Your task to perform on an android device: Go to eBay Image 0: 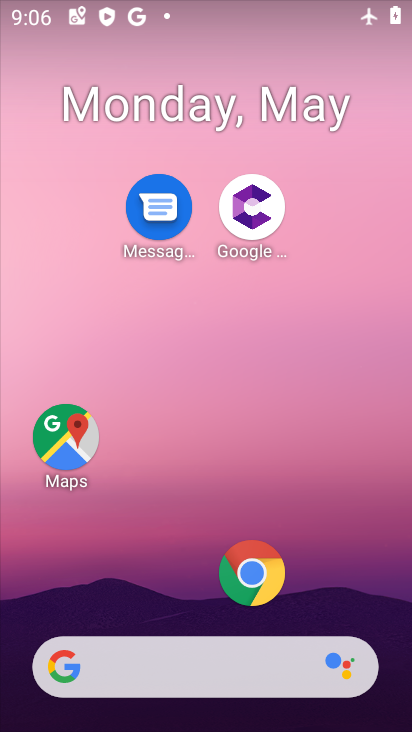
Step 0: click (266, 583)
Your task to perform on an android device: Go to eBay Image 1: 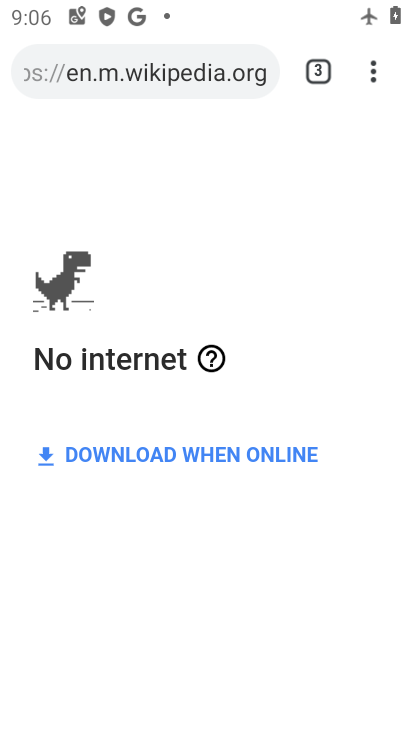
Step 1: click (211, 74)
Your task to perform on an android device: Go to eBay Image 2: 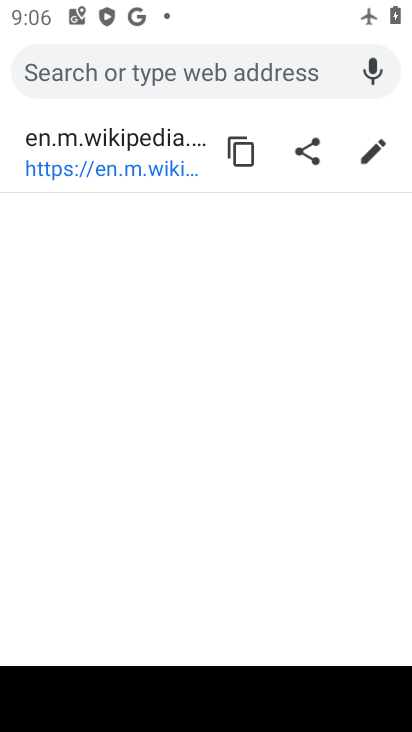
Step 2: type "ebay"
Your task to perform on an android device: Go to eBay Image 3: 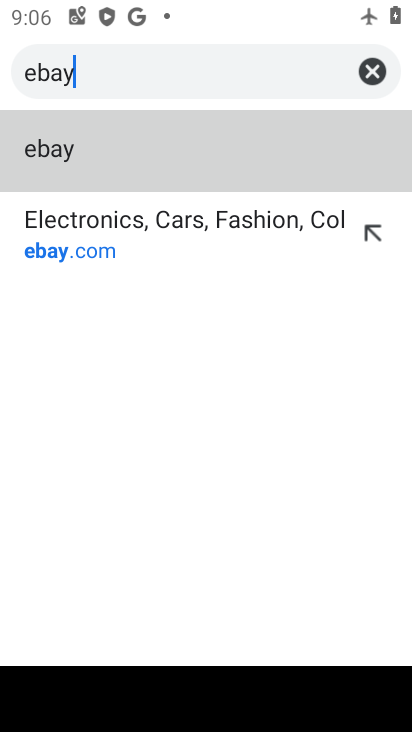
Step 3: click (93, 241)
Your task to perform on an android device: Go to eBay Image 4: 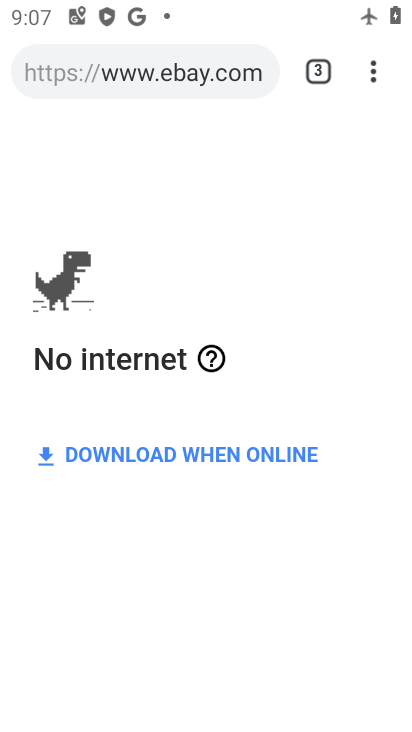
Step 4: task complete